Your task to perform on an android device: Open sound settings Image 0: 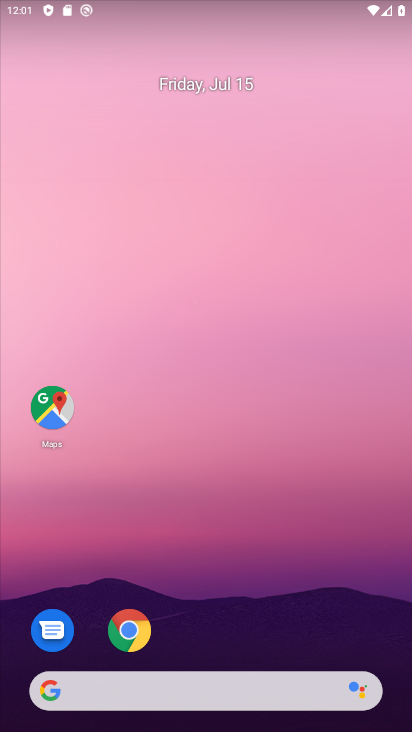
Step 0: drag from (174, 664) to (246, 247)
Your task to perform on an android device: Open sound settings Image 1: 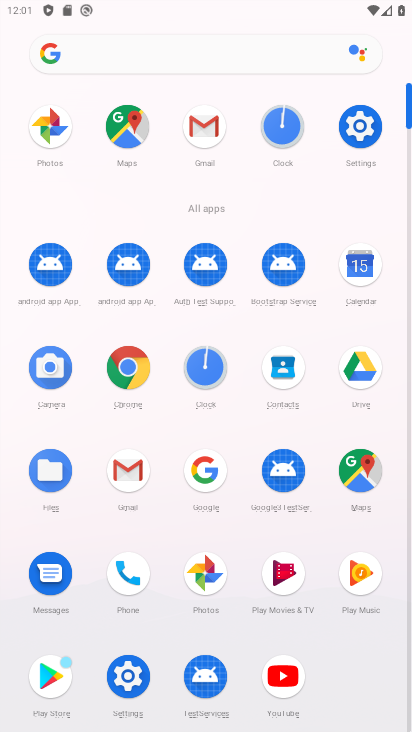
Step 1: click (133, 687)
Your task to perform on an android device: Open sound settings Image 2: 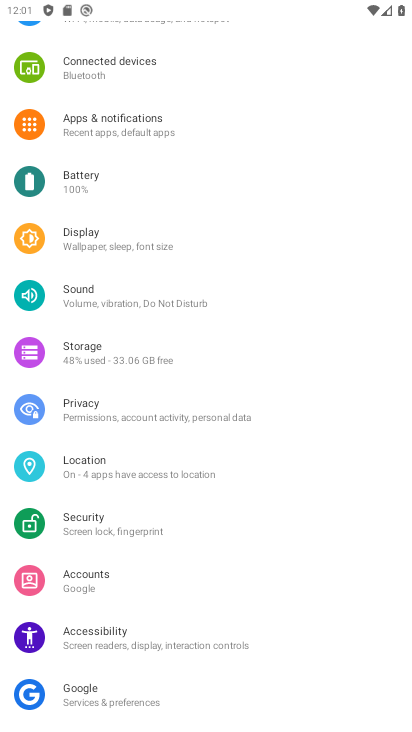
Step 2: click (114, 309)
Your task to perform on an android device: Open sound settings Image 3: 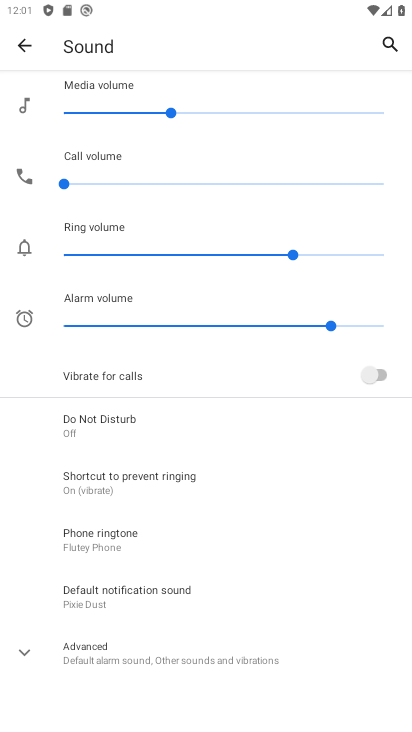
Step 3: task complete